Your task to perform on an android device: Clear the cart on newegg. Add asus rog to the cart on newegg Image 0: 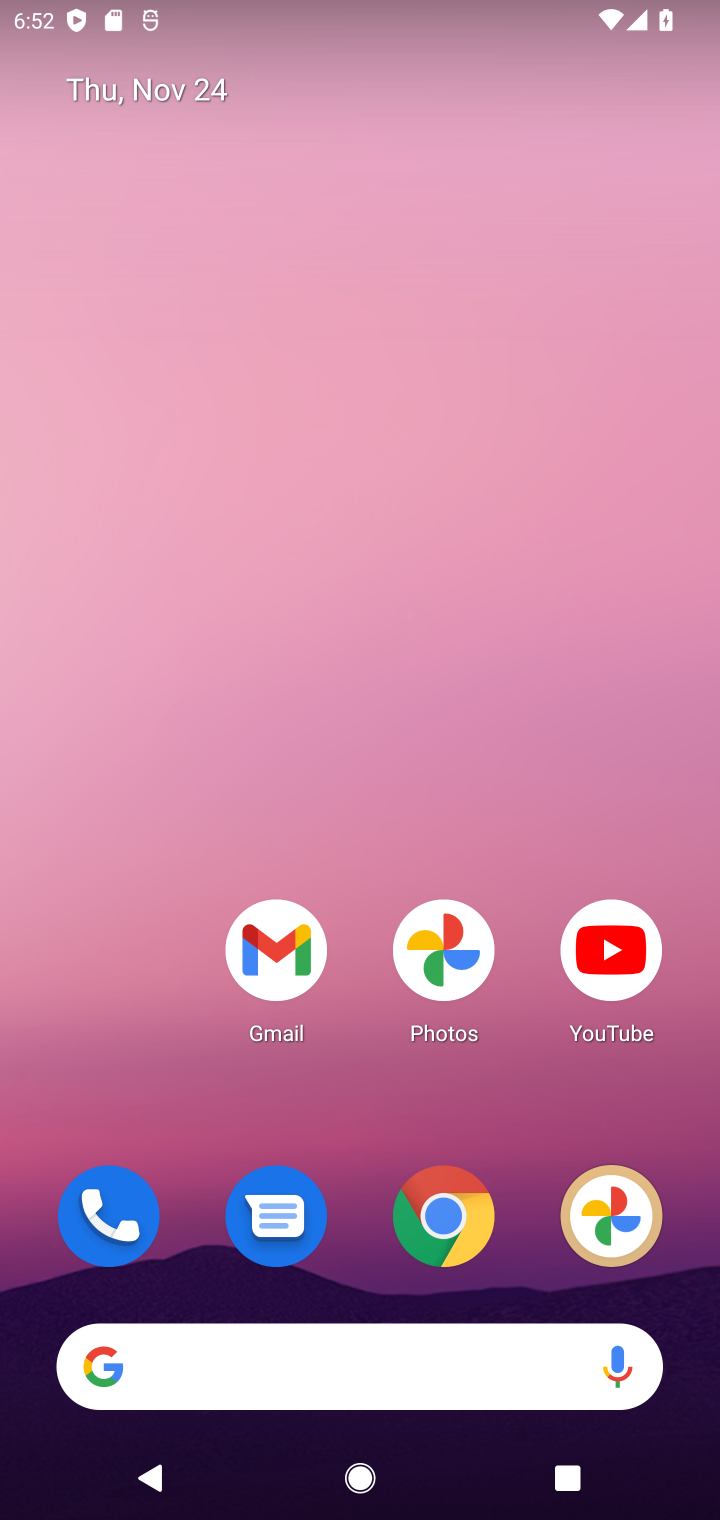
Step 0: click (448, 1228)
Your task to perform on an android device: Clear the cart on newegg. Add asus rog to the cart on newegg Image 1: 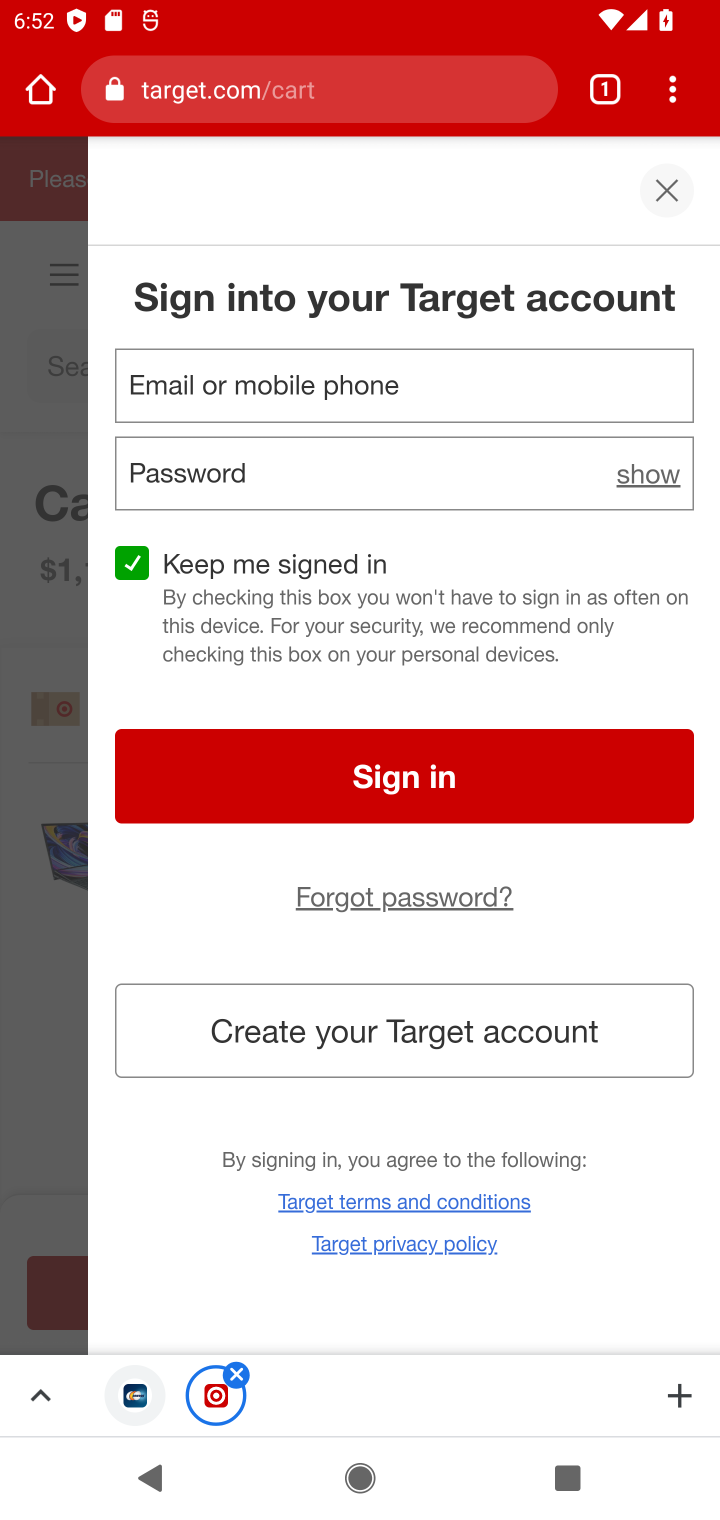
Step 1: click (337, 84)
Your task to perform on an android device: Clear the cart on newegg. Add asus rog to the cart on newegg Image 2: 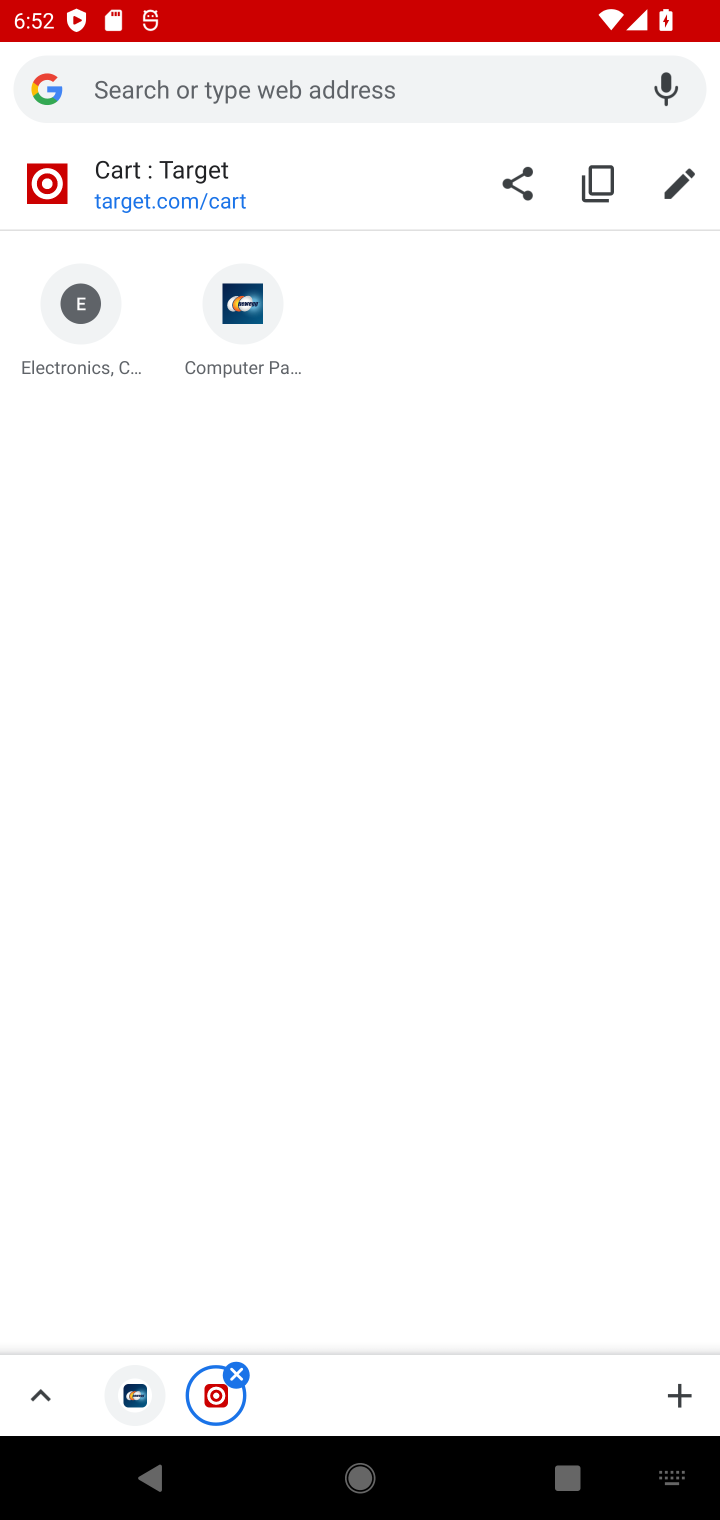
Step 2: type "newegg"
Your task to perform on an android device: Clear the cart on newegg. Add asus rog to the cart on newegg Image 3: 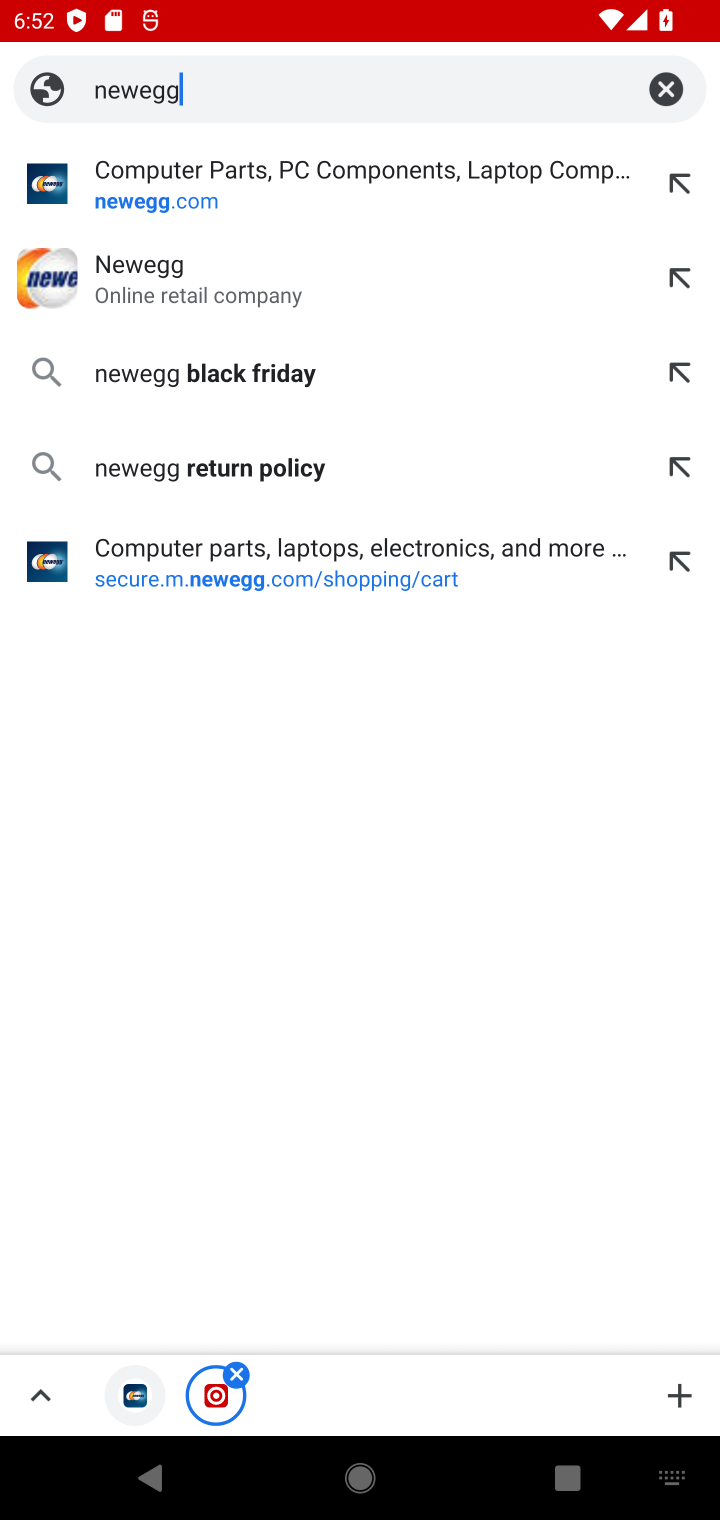
Step 3: click (224, 199)
Your task to perform on an android device: Clear the cart on newegg. Add asus rog to the cart on newegg Image 4: 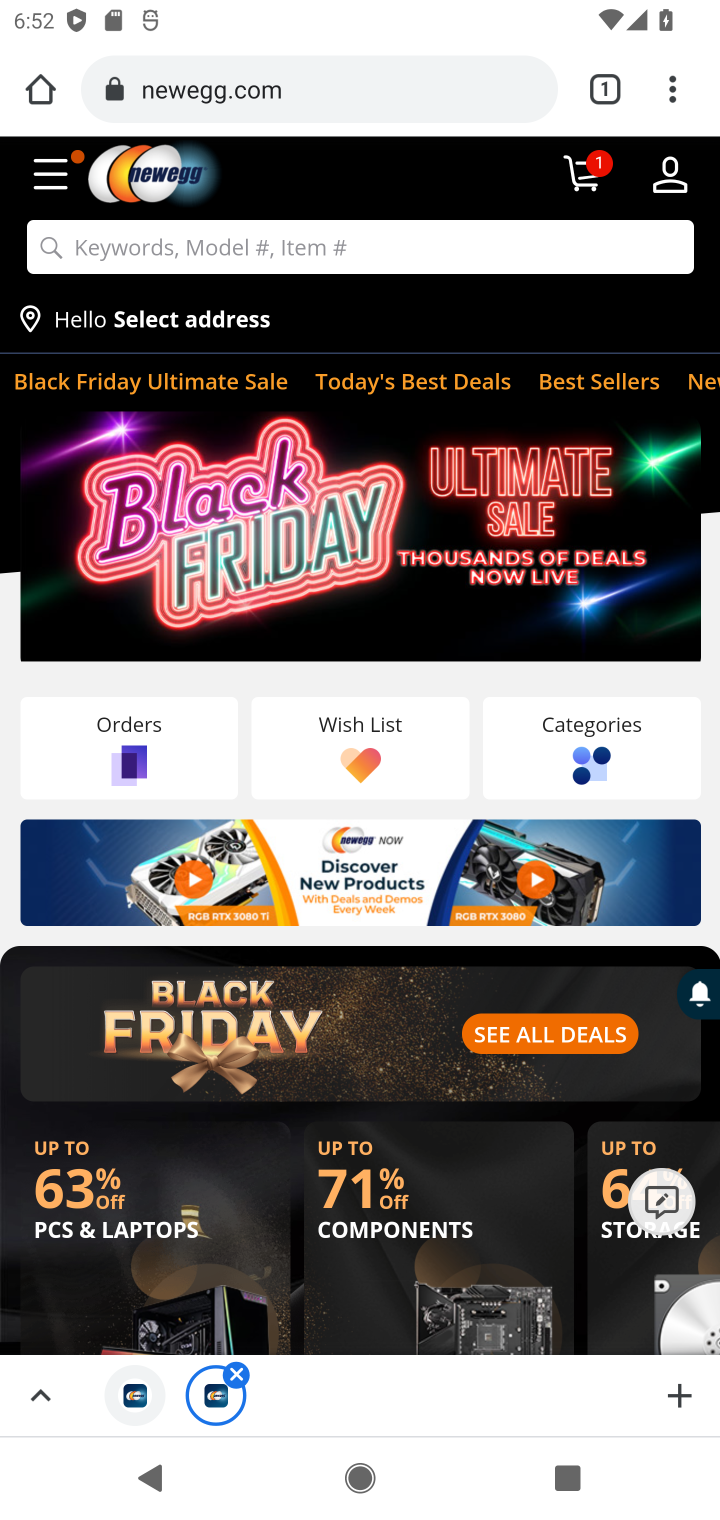
Step 4: click (594, 180)
Your task to perform on an android device: Clear the cart on newegg. Add asus rog to the cart on newegg Image 5: 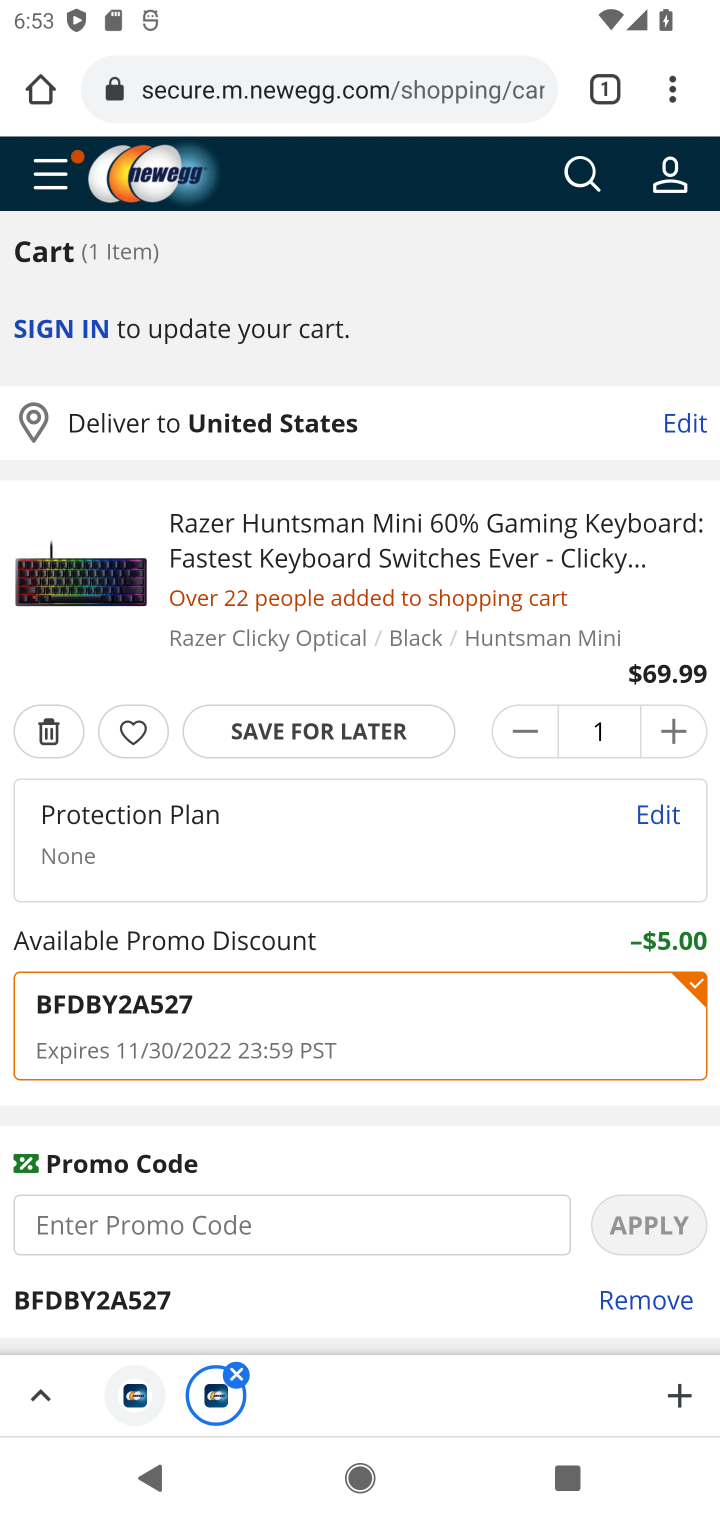
Step 5: click (50, 718)
Your task to perform on an android device: Clear the cart on newegg. Add asus rog to the cart on newegg Image 6: 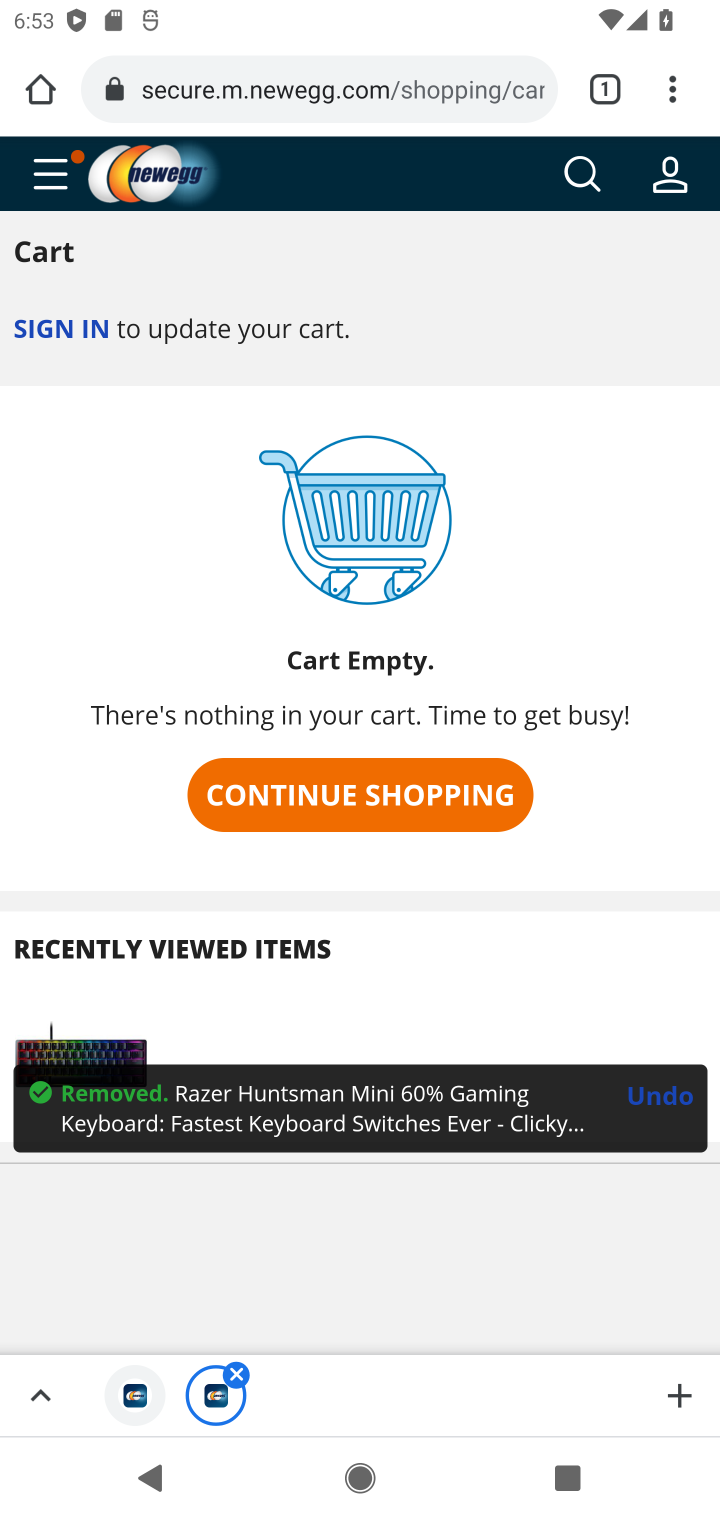
Step 6: click (592, 179)
Your task to perform on an android device: Clear the cart on newegg. Add asus rog to the cart on newegg Image 7: 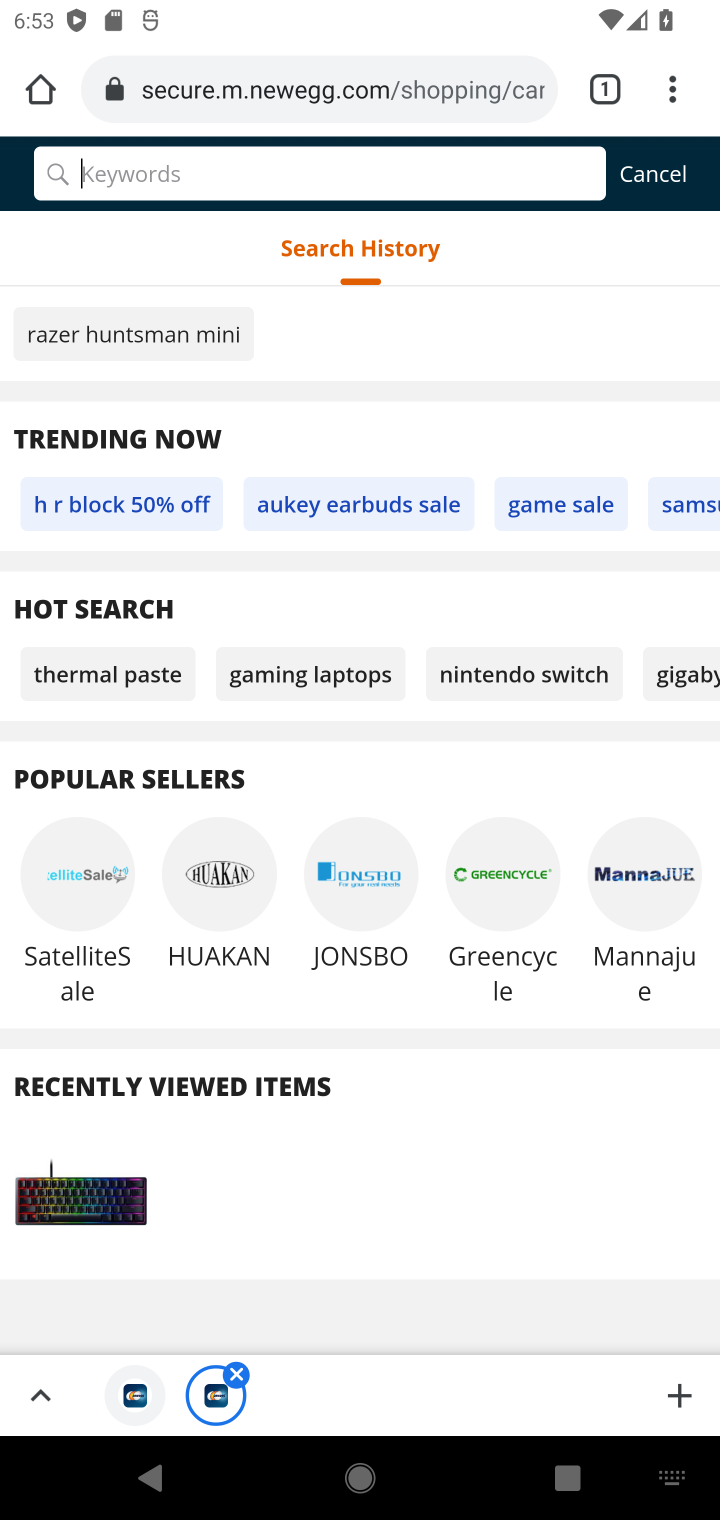
Step 7: type "asus rog"
Your task to perform on an android device: Clear the cart on newegg. Add asus rog to the cart on newegg Image 8: 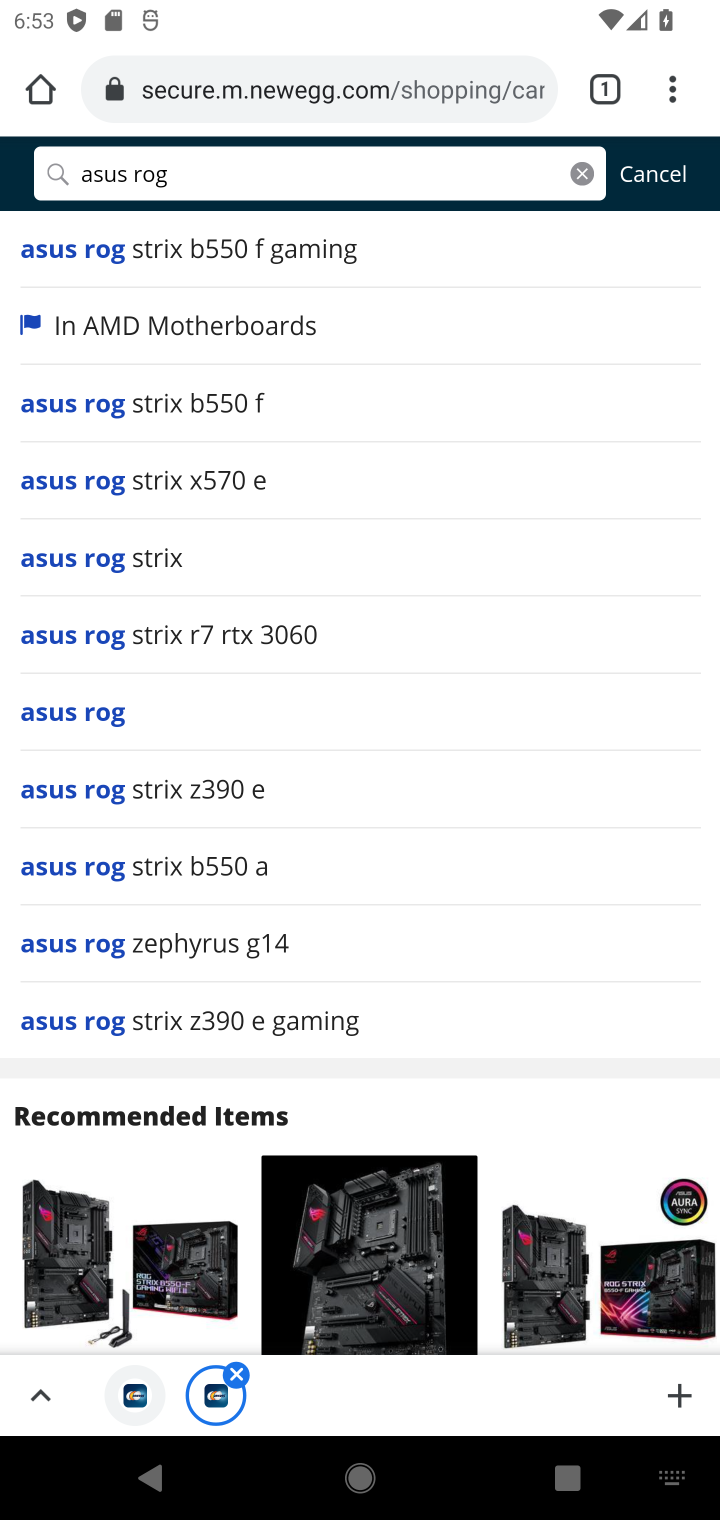
Step 8: click (148, 258)
Your task to perform on an android device: Clear the cart on newegg. Add asus rog to the cart on newegg Image 9: 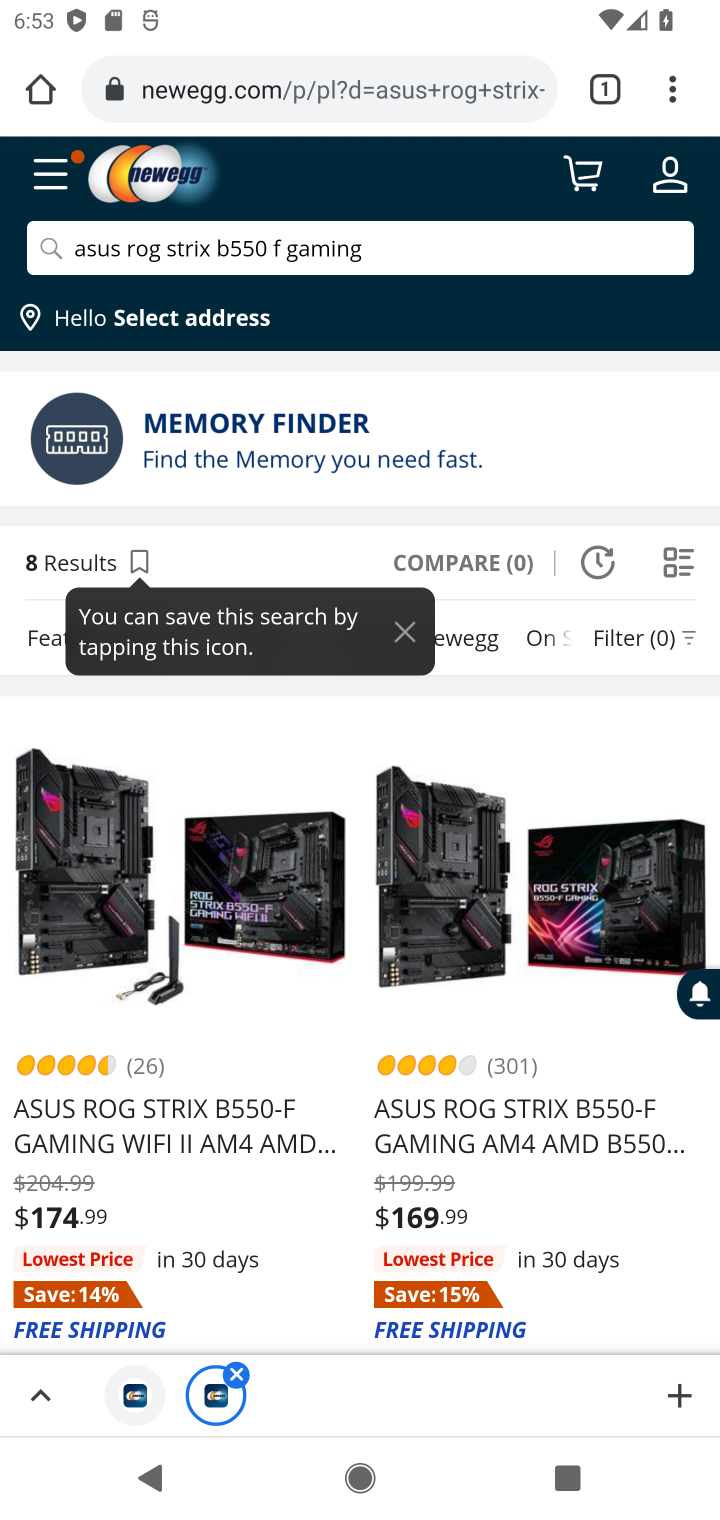
Step 9: click (206, 857)
Your task to perform on an android device: Clear the cart on newegg. Add asus rog to the cart on newegg Image 10: 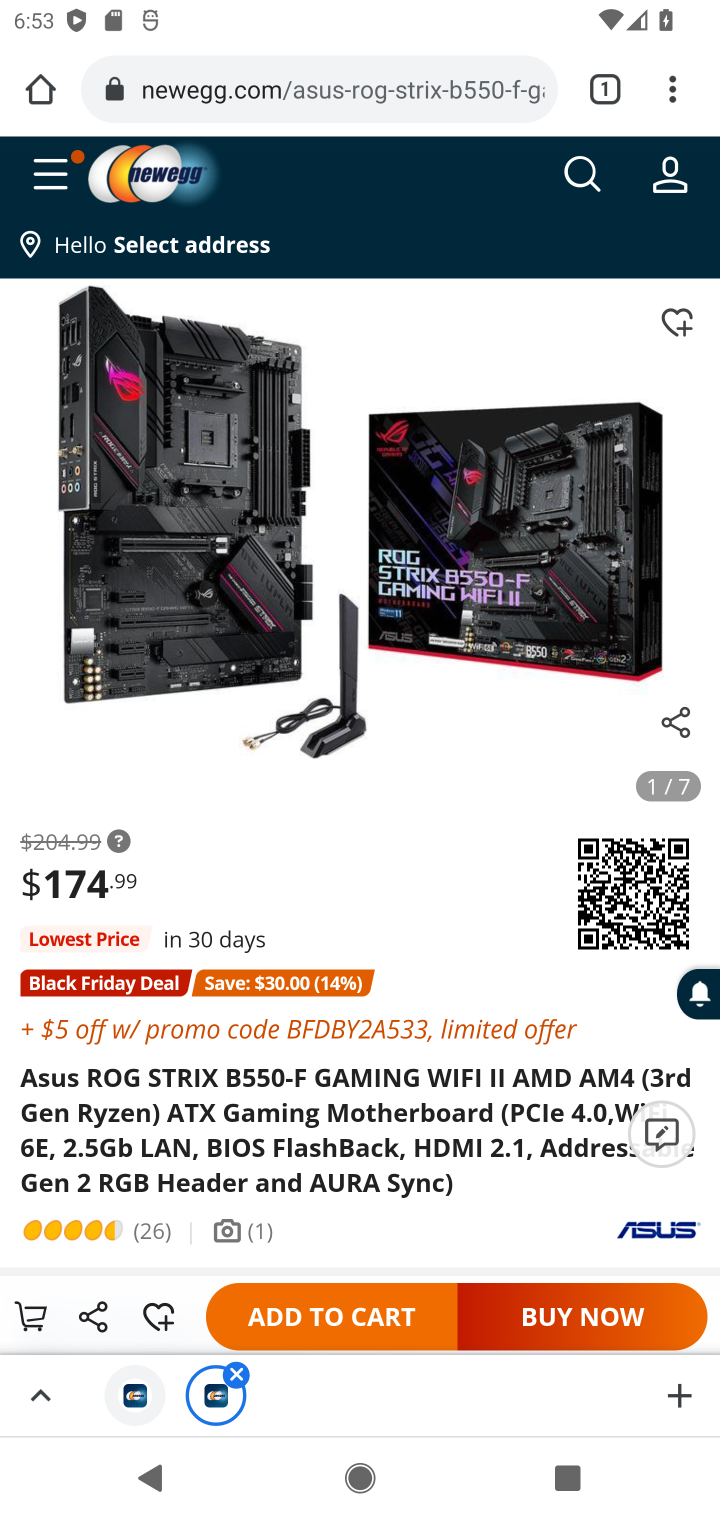
Step 10: click (348, 1316)
Your task to perform on an android device: Clear the cart on newegg. Add asus rog to the cart on newegg Image 11: 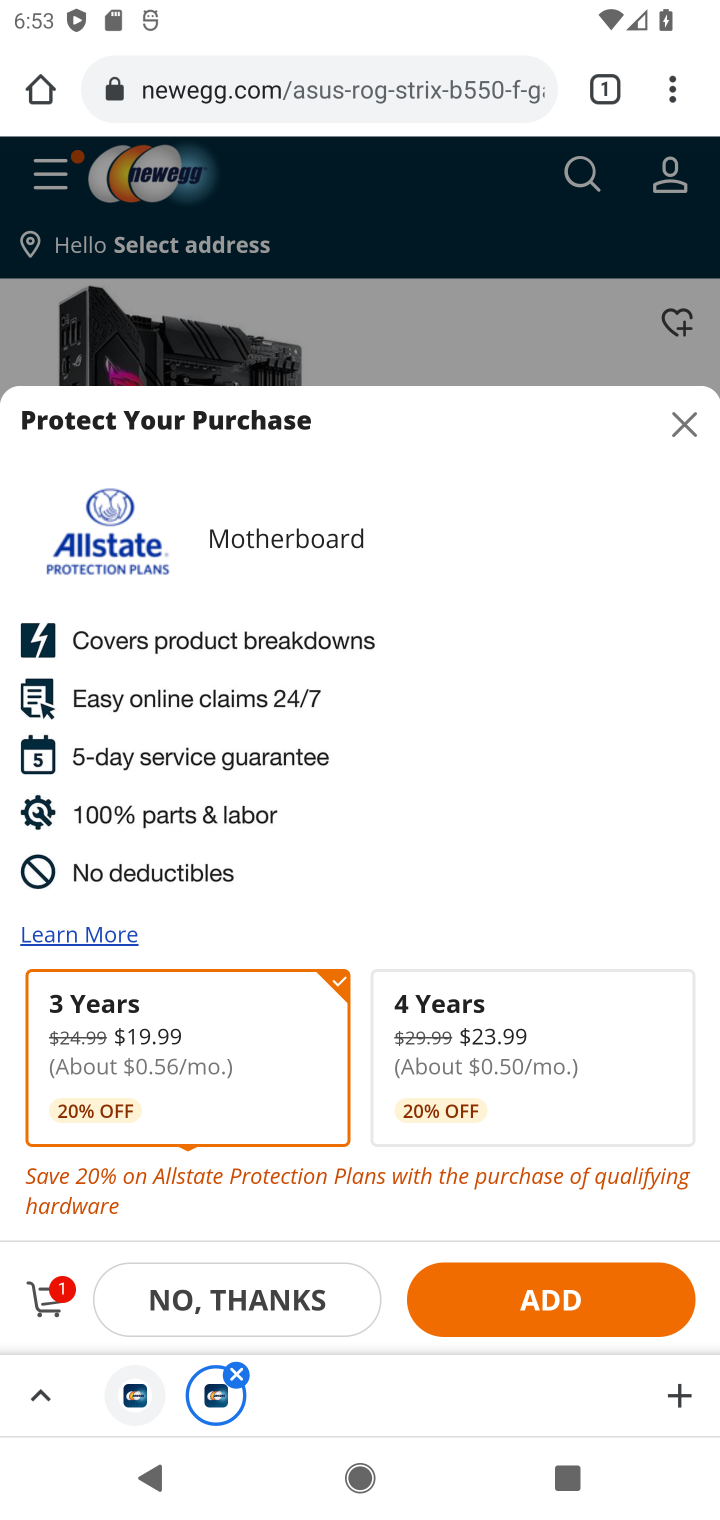
Step 11: click (304, 1298)
Your task to perform on an android device: Clear the cart on newegg. Add asus rog to the cart on newegg Image 12: 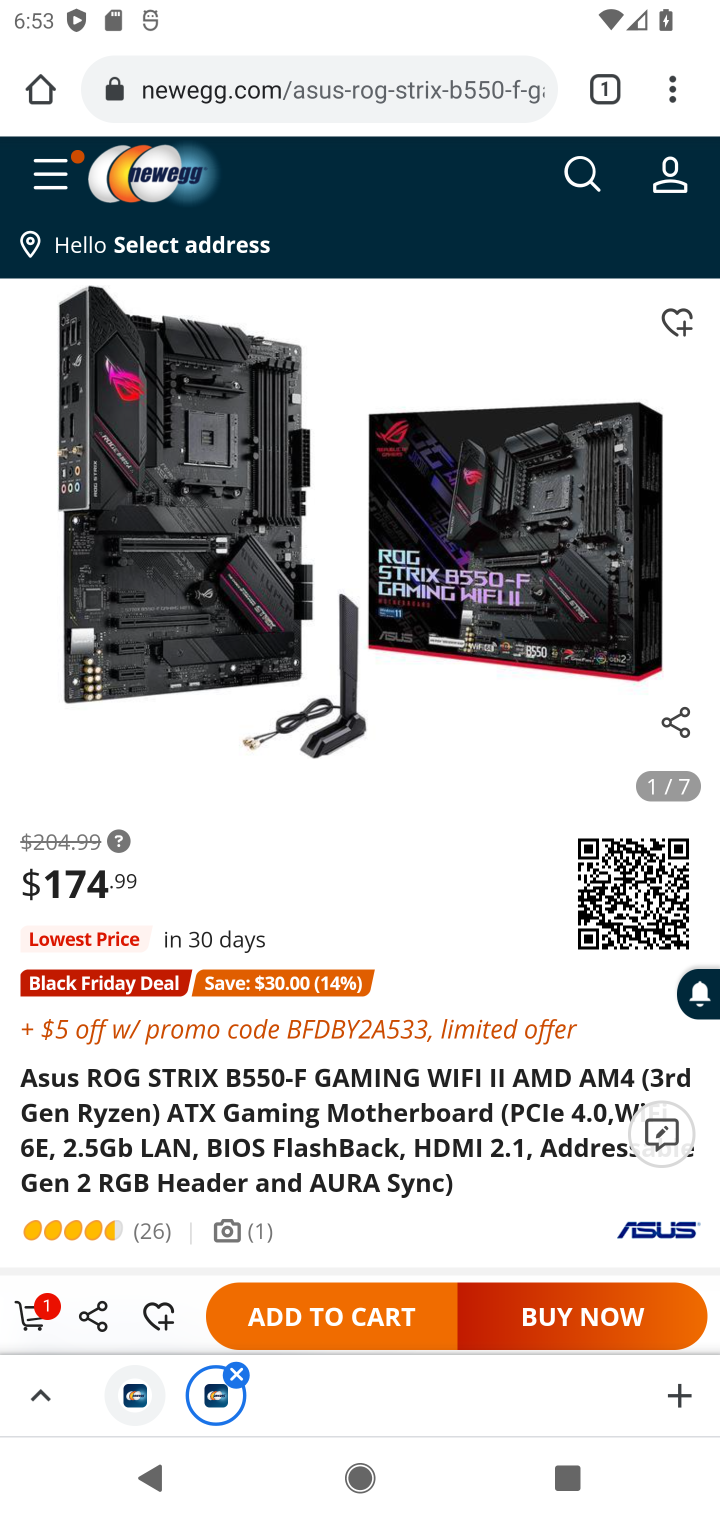
Step 12: task complete